Your task to perform on an android device: Search for "rayovac triple a" on amazon, select the first entry, and add it to the cart. Image 0: 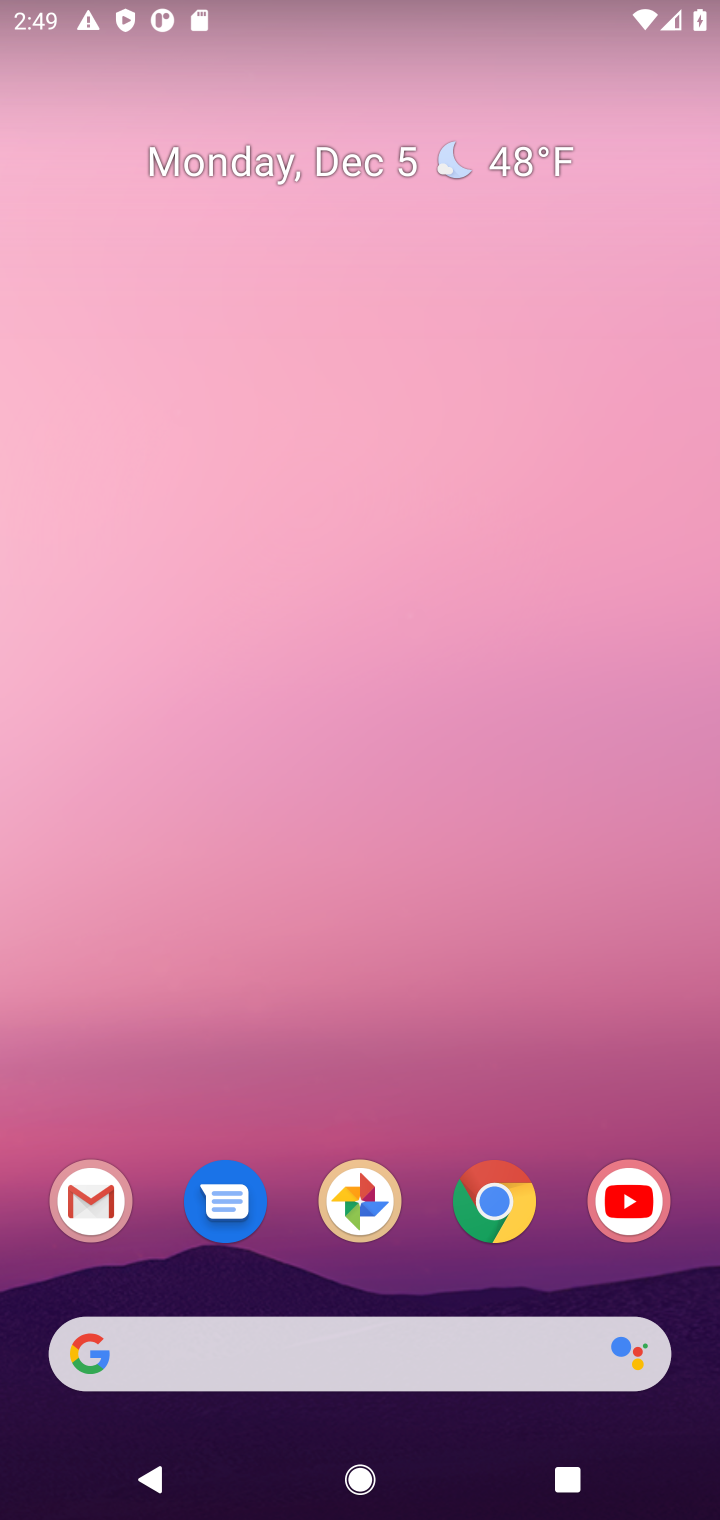
Step 0: click (480, 1201)
Your task to perform on an android device: Search for "rayovac triple a" on amazon, select the first entry, and add it to the cart. Image 1: 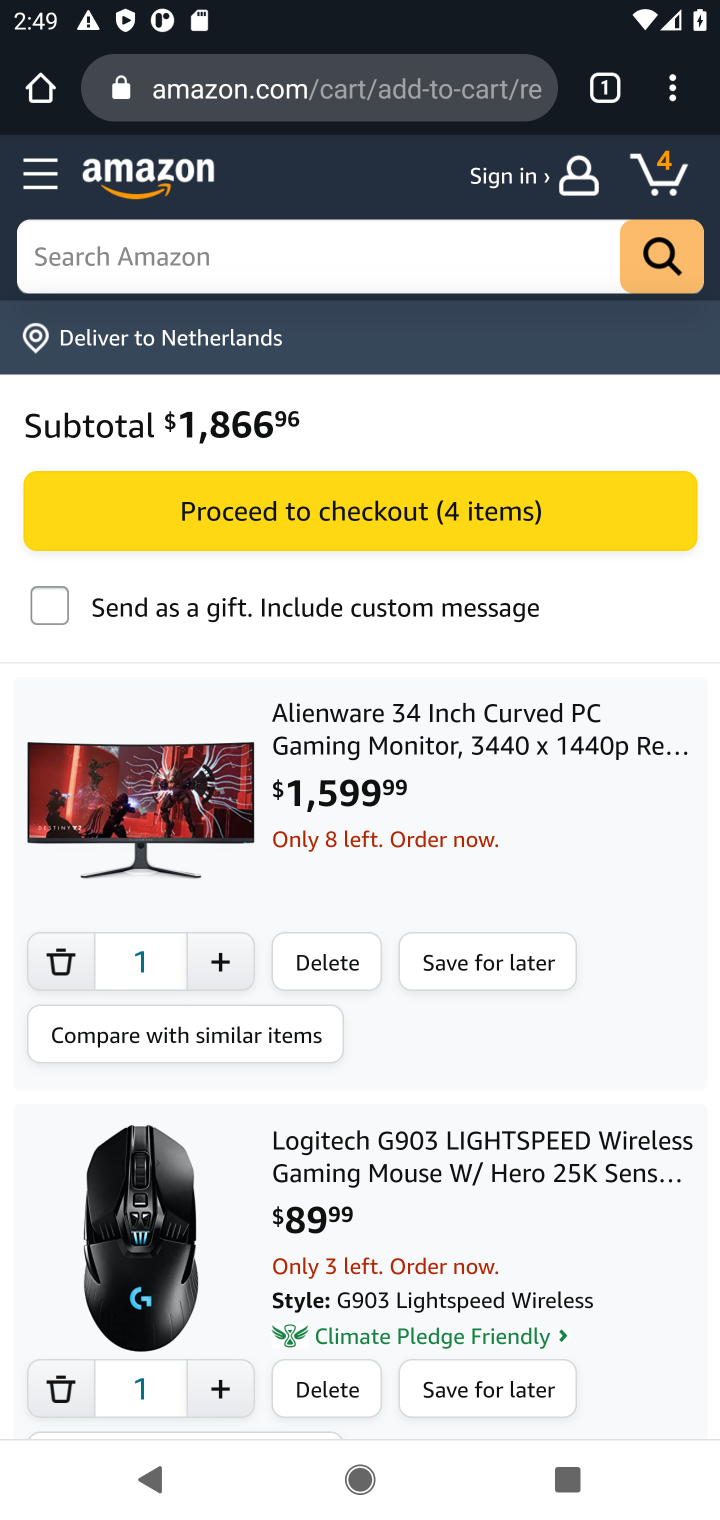
Step 1: click (329, 242)
Your task to perform on an android device: Search for "rayovac triple a" on amazon, select the first entry, and add it to the cart. Image 2: 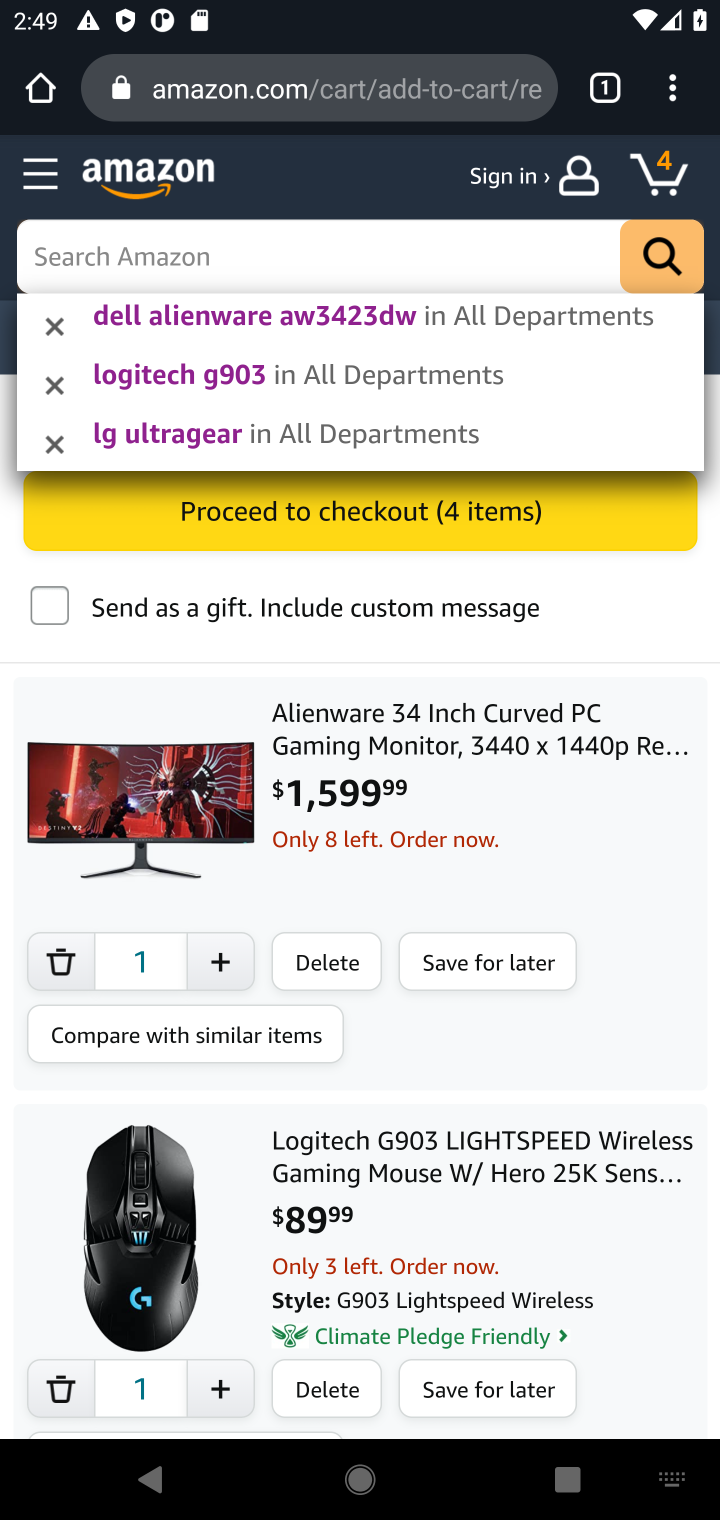
Step 2: type "rayovac triple a"
Your task to perform on an android device: Search for "rayovac triple a" on amazon, select the first entry, and add it to the cart. Image 3: 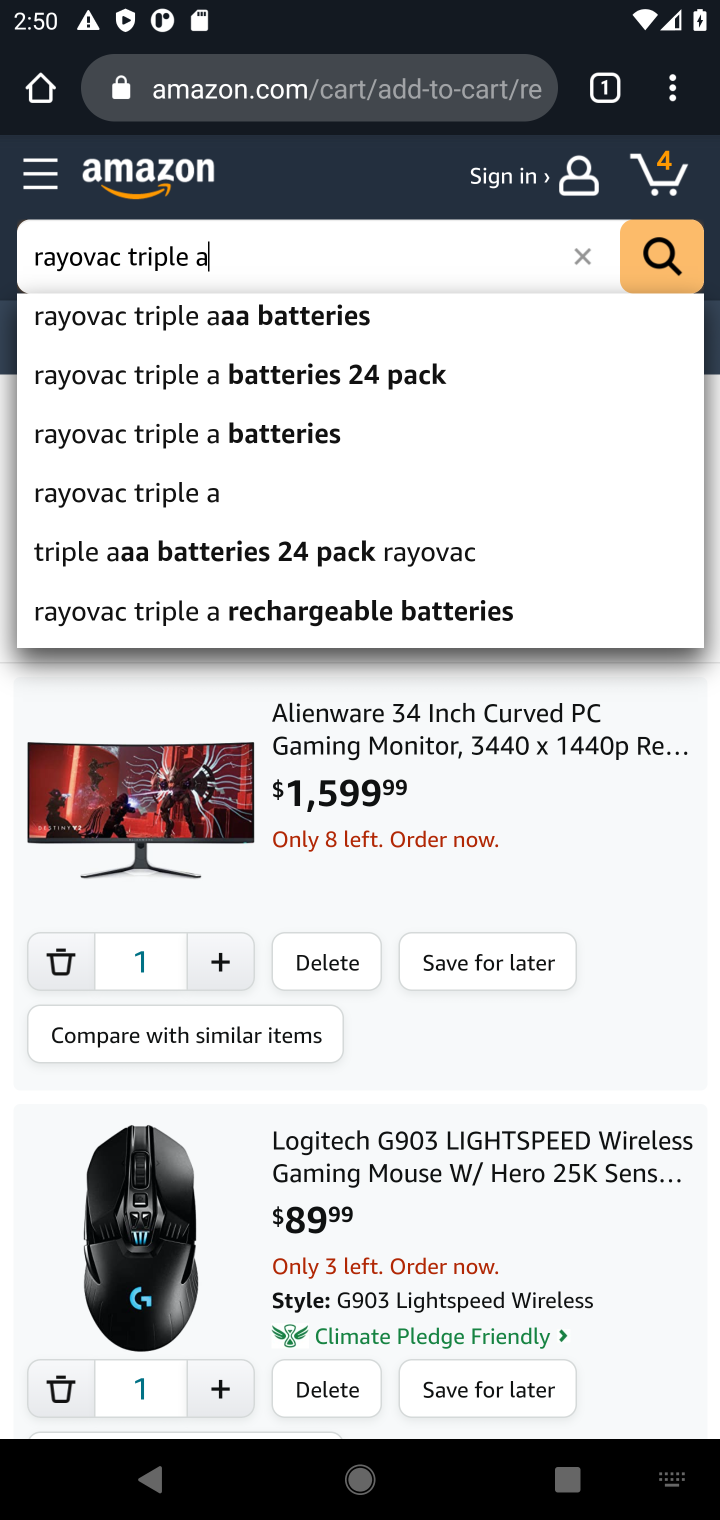
Step 3: click (277, 327)
Your task to perform on an android device: Search for "rayovac triple a" on amazon, select the first entry, and add it to the cart. Image 4: 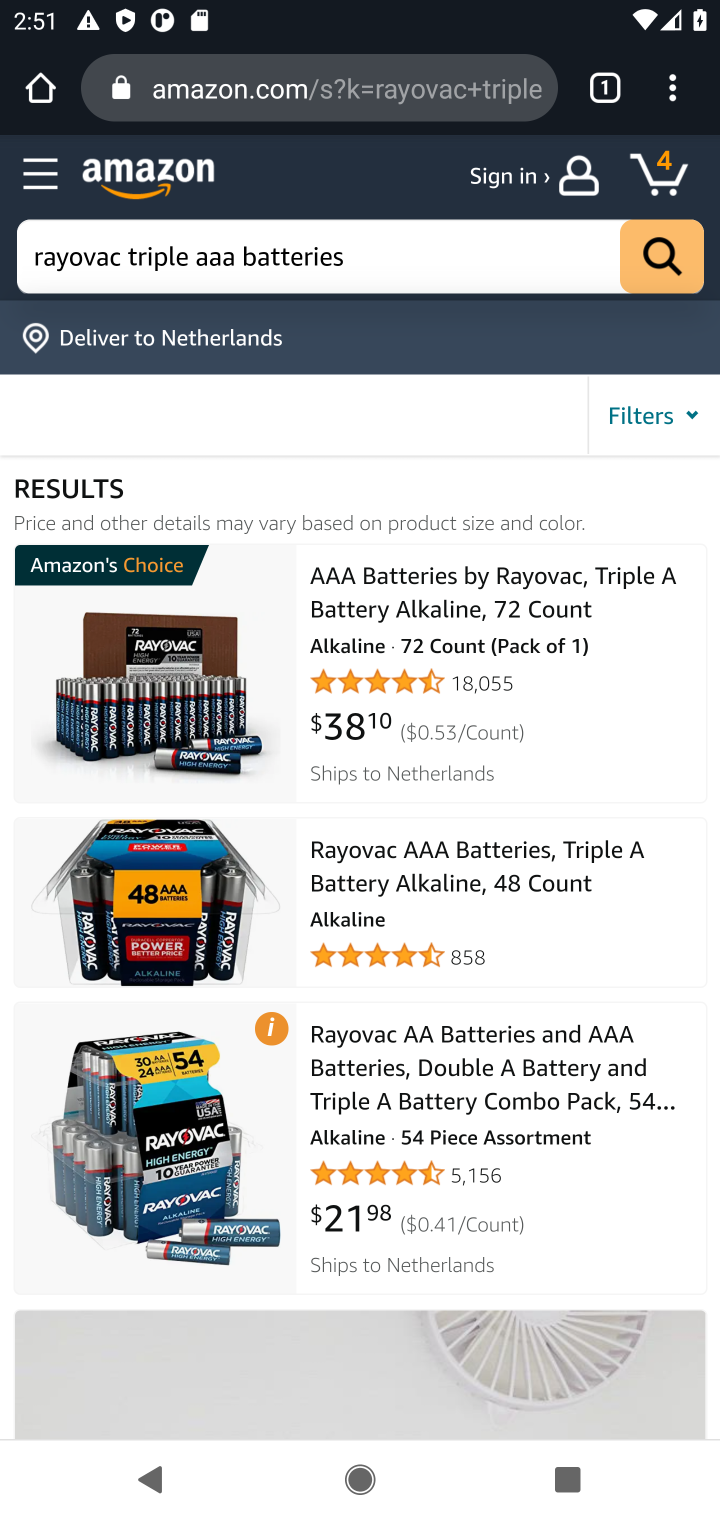
Step 4: click (185, 721)
Your task to perform on an android device: Search for "rayovac triple a" on amazon, select the first entry, and add it to the cart. Image 5: 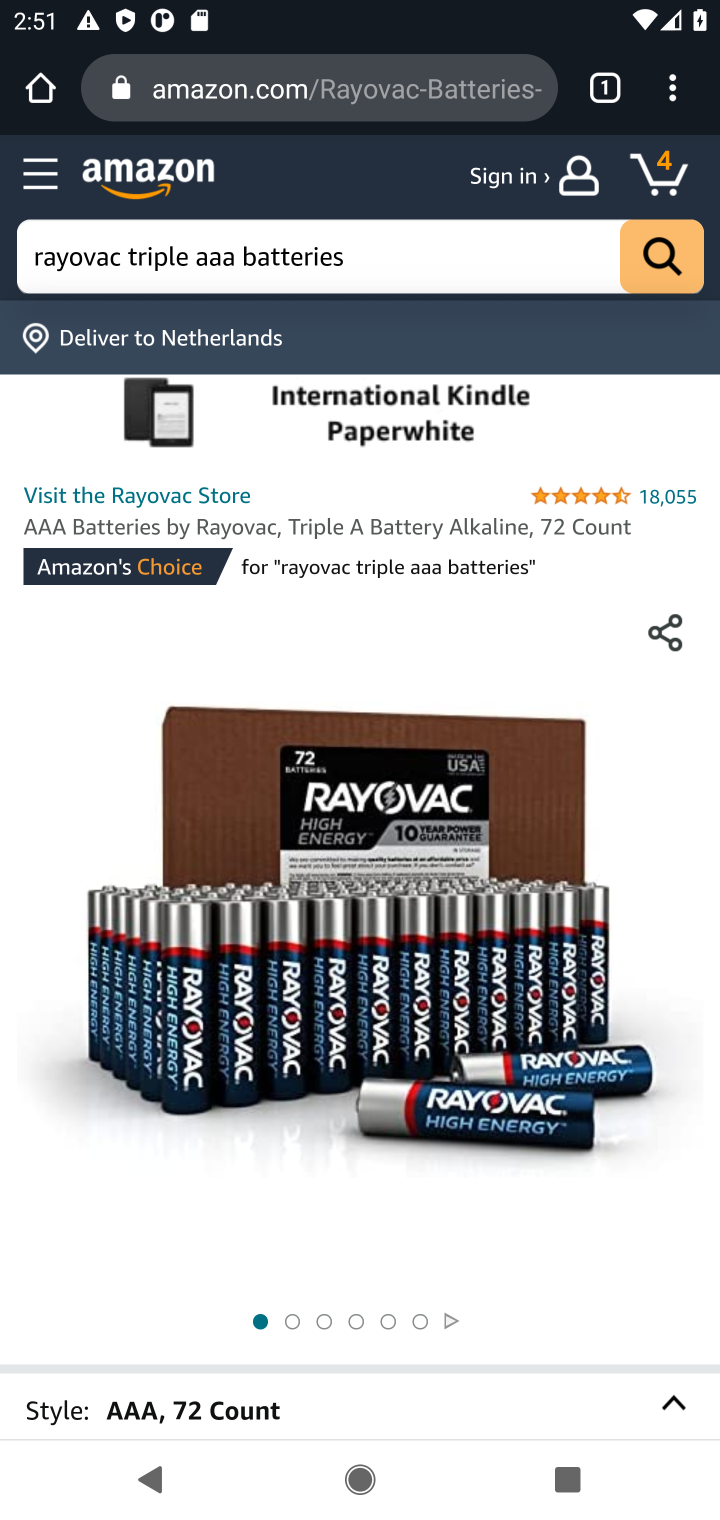
Step 5: drag from (467, 1288) to (410, 249)
Your task to perform on an android device: Search for "rayovac triple a" on amazon, select the first entry, and add it to the cart. Image 6: 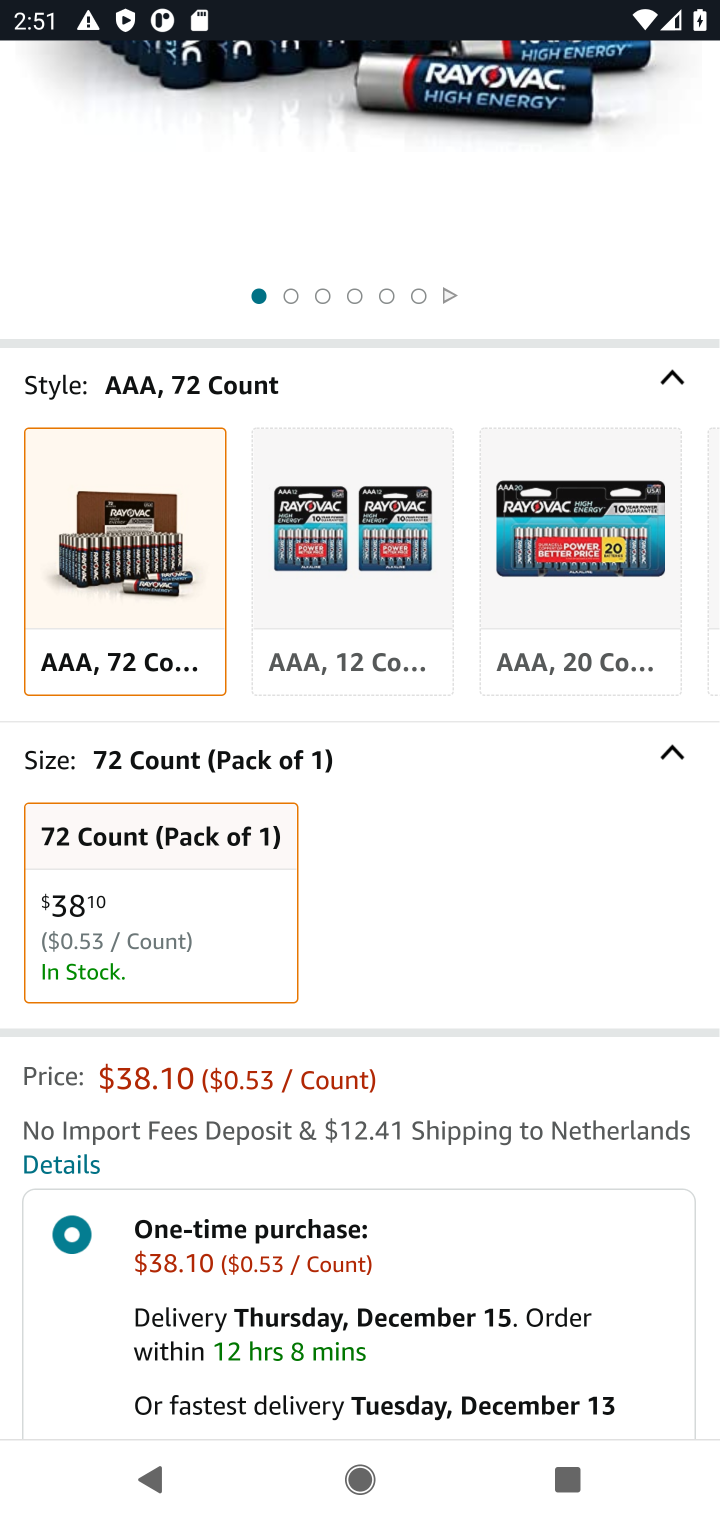
Step 6: drag from (439, 1241) to (432, 461)
Your task to perform on an android device: Search for "rayovac triple a" on amazon, select the first entry, and add it to the cart. Image 7: 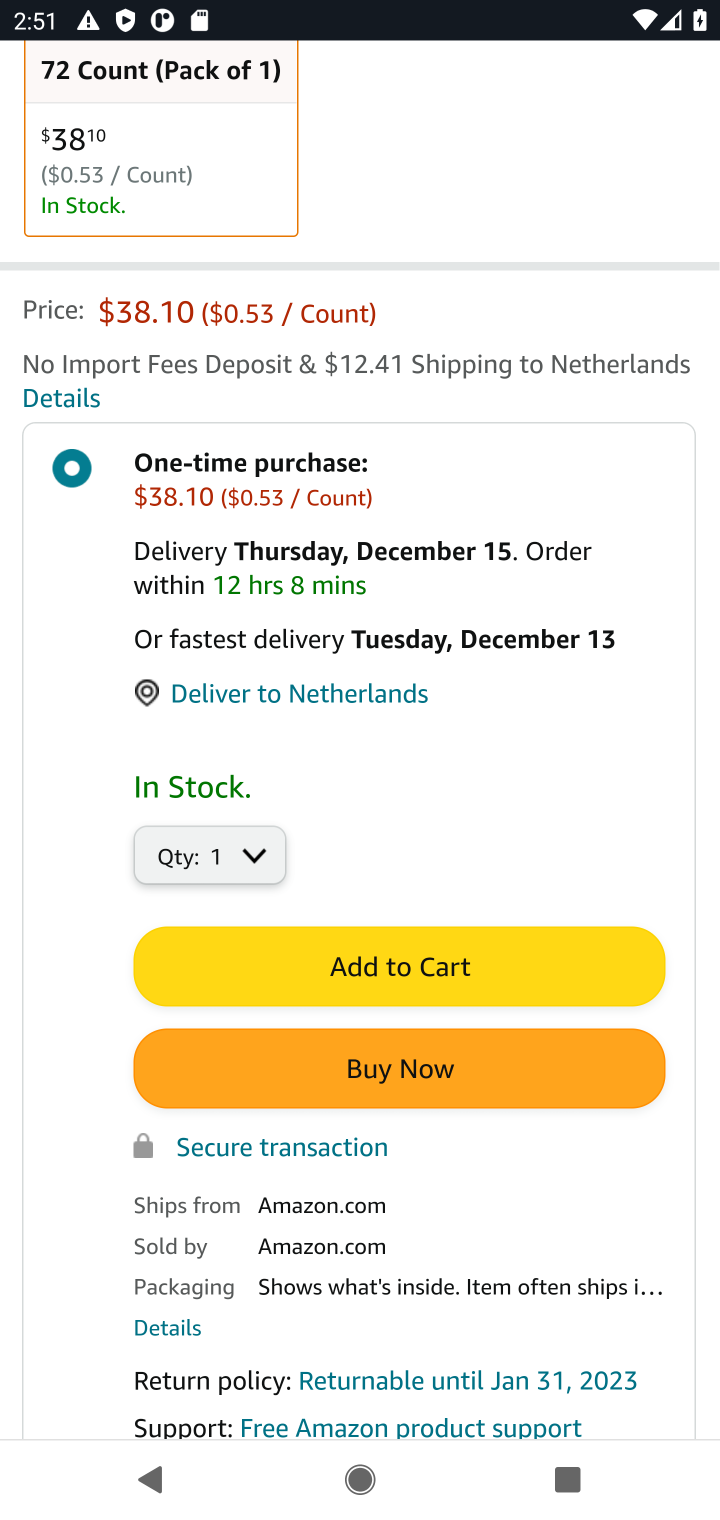
Step 7: click (383, 957)
Your task to perform on an android device: Search for "rayovac triple a" on amazon, select the first entry, and add it to the cart. Image 8: 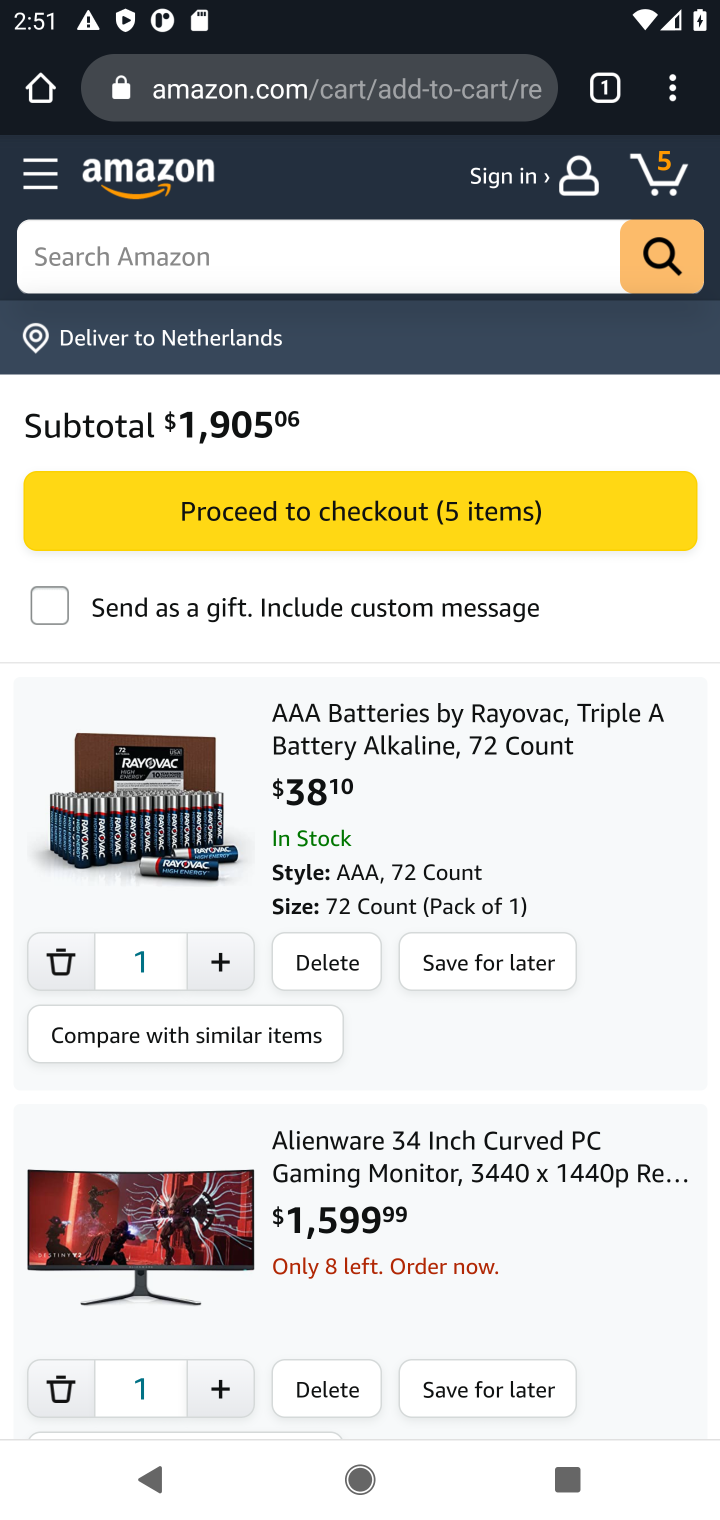
Step 8: task complete